Your task to perform on an android device: change the clock display to analog Image 0: 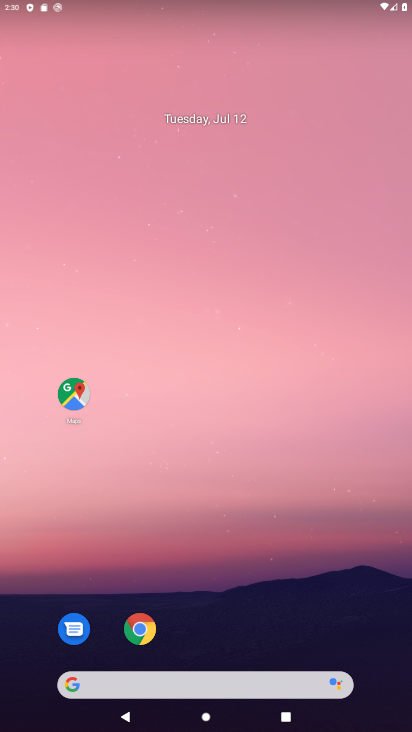
Step 0: drag from (216, 663) to (252, 138)
Your task to perform on an android device: change the clock display to analog Image 1: 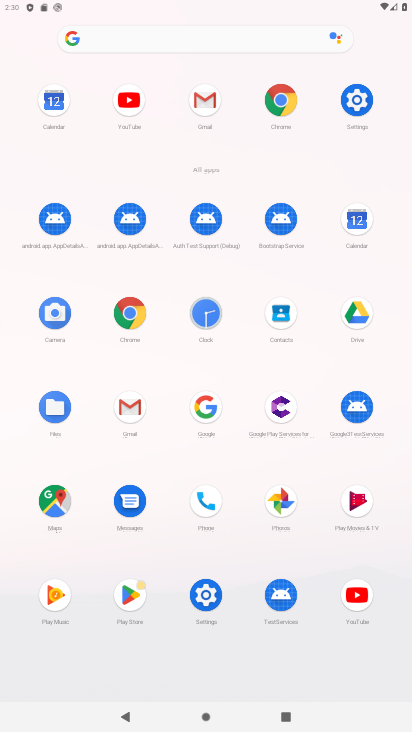
Step 1: click (204, 308)
Your task to perform on an android device: change the clock display to analog Image 2: 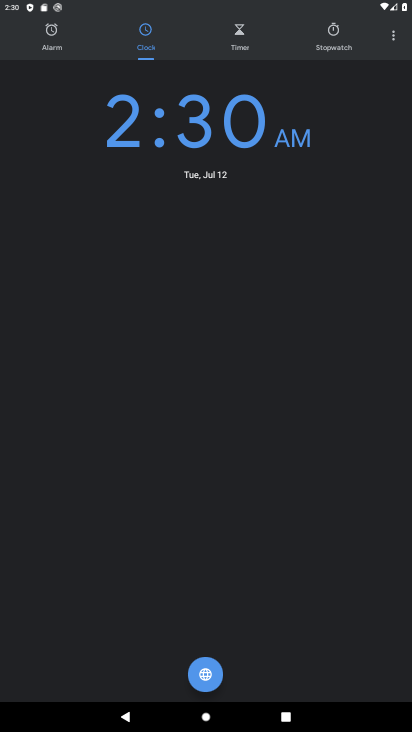
Step 2: click (395, 38)
Your task to perform on an android device: change the clock display to analog Image 3: 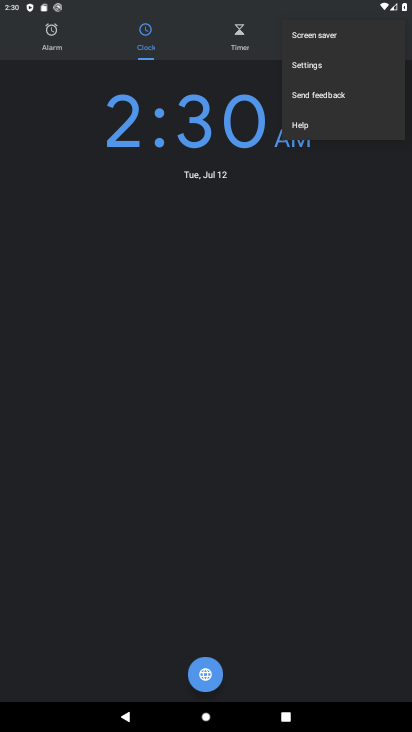
Step 3: click (312, 68)
Your task to perform on an android device: change the clock display to analog Image 4: 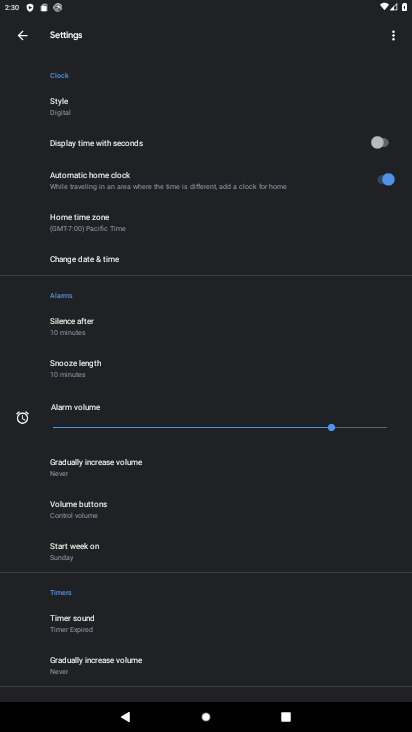
Step 4: click (64, 109)
Your task to perform on an android device: change the clock display to analog Image 5: 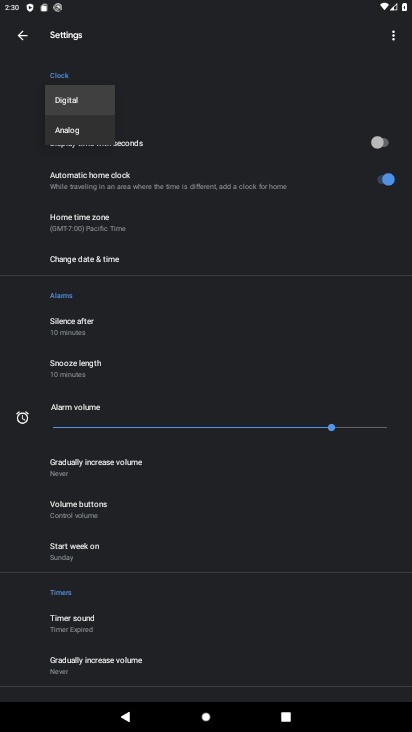
Step 5: click (79, 131)
Your task to perform on an android device: change the clock display to analog Image 6: 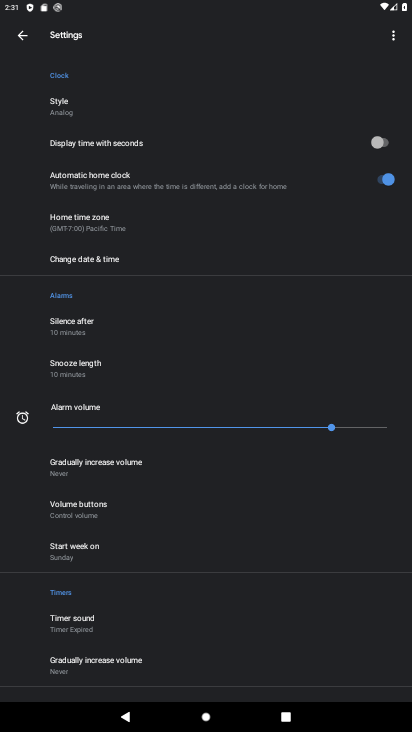
Step 6: task complete